Your task to perform on an android device: What's the weather today? Image 0: 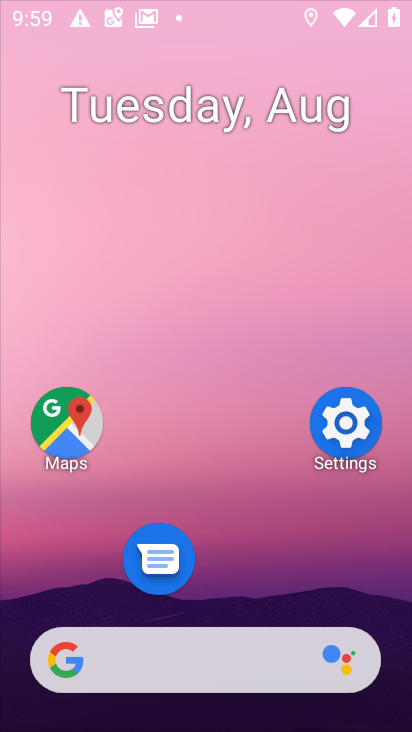
Step 0: click (411, 393)
Your task to perform on an android device: What's the weather today? Image 1: 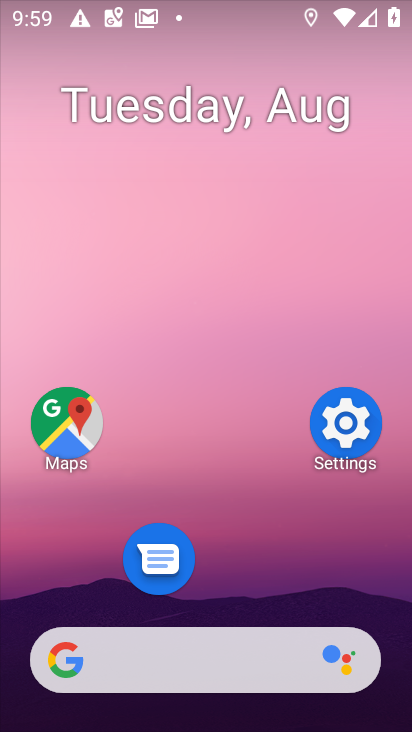
Step 1: click (161, 641)
Your task to perform on an android device: What's the weather today? Image 2: 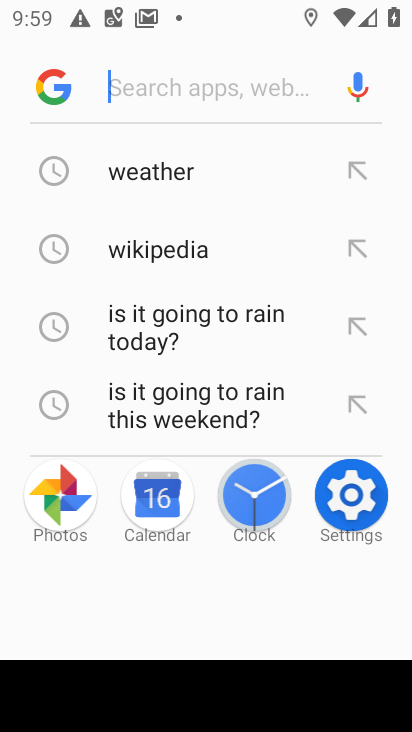
Step 2: click (113, 172)
Your task to perform on an android device: What's the weather today? Image 3: 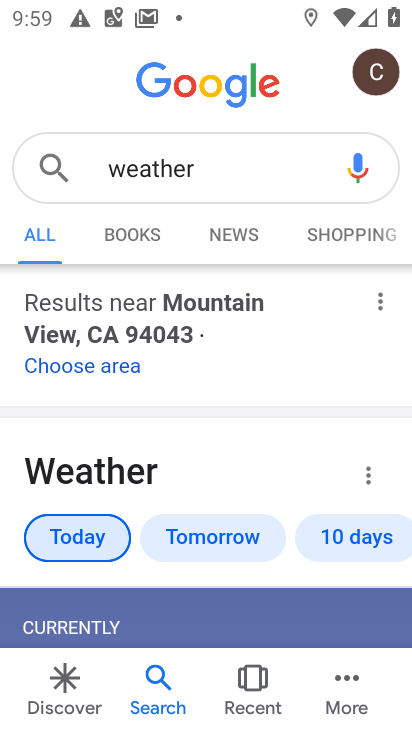
Step 3: task complete